Your task to perform on an android device: change alarm snooze length Image 0: 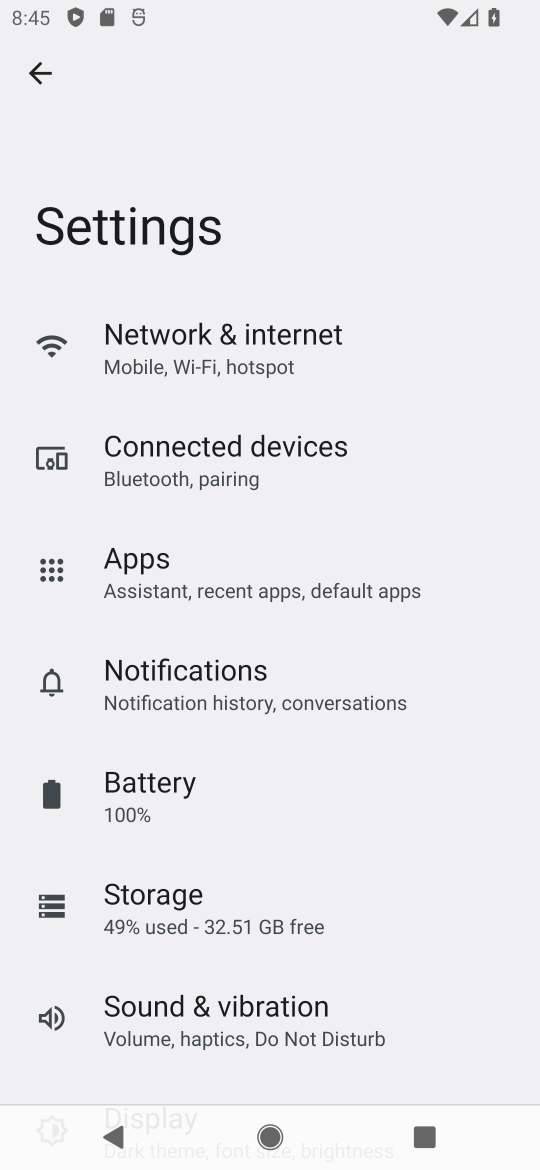
Step 0: press home button
Your task to perform on an android device: change alarm snooze length Image 1: 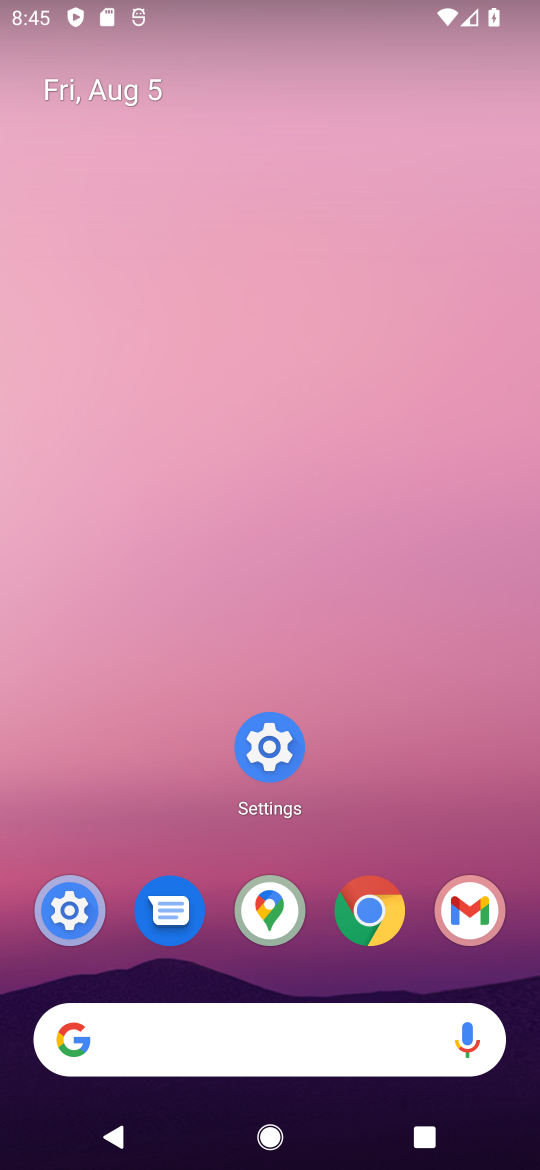
Step 1: drag from (301, 979) to (386, 204)
Your task to perform on an android device: change alarm snooze length Image 2: 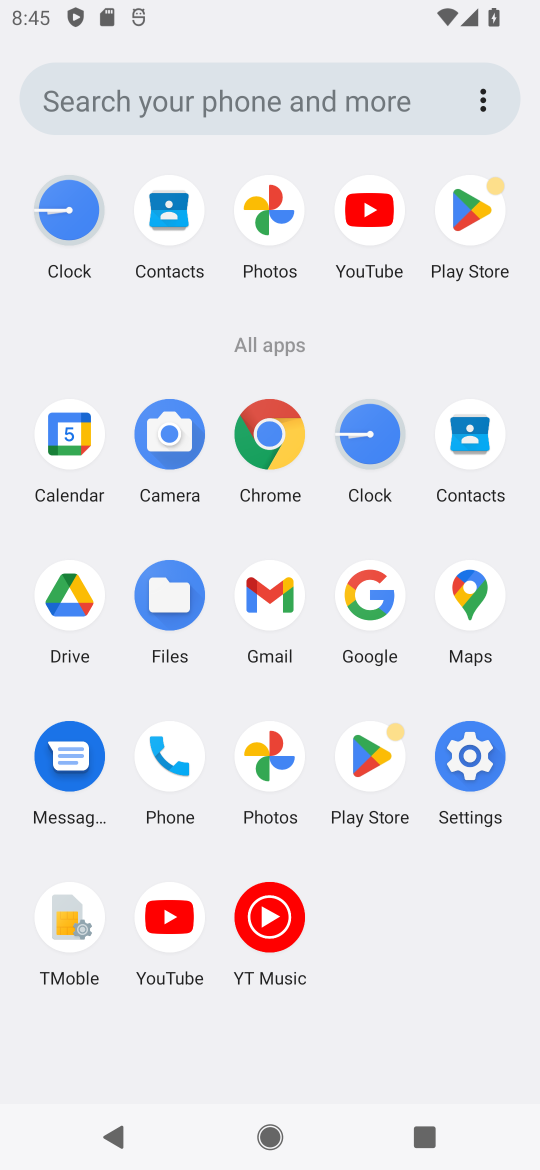
Step 2: click (360, 433)
Your task to perform on an android device: change alarm snooze length Image 3: 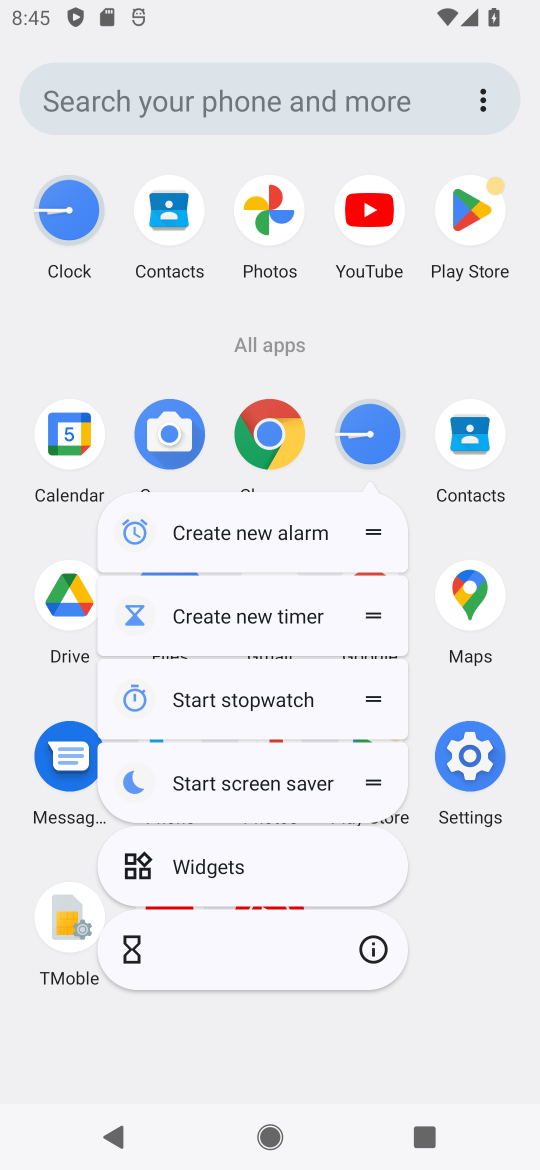
Step 3: click (371, 442)
Your task to perform on an android device: change alarm snooze length Image 4: 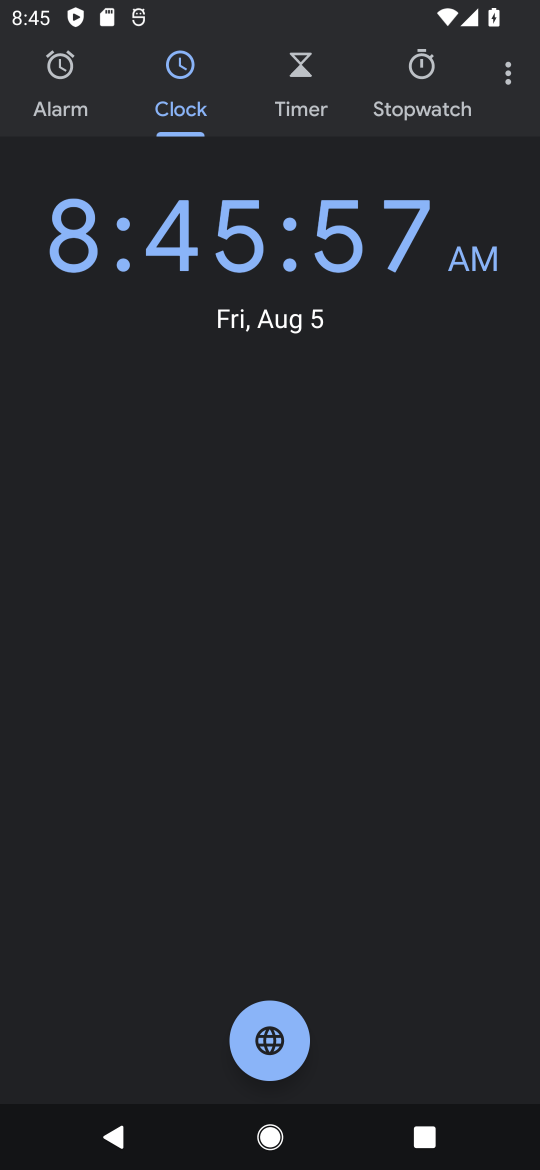
Step 4: click (511, 76)
Your task to perform on an android device: change alarm snooze length Image 5: 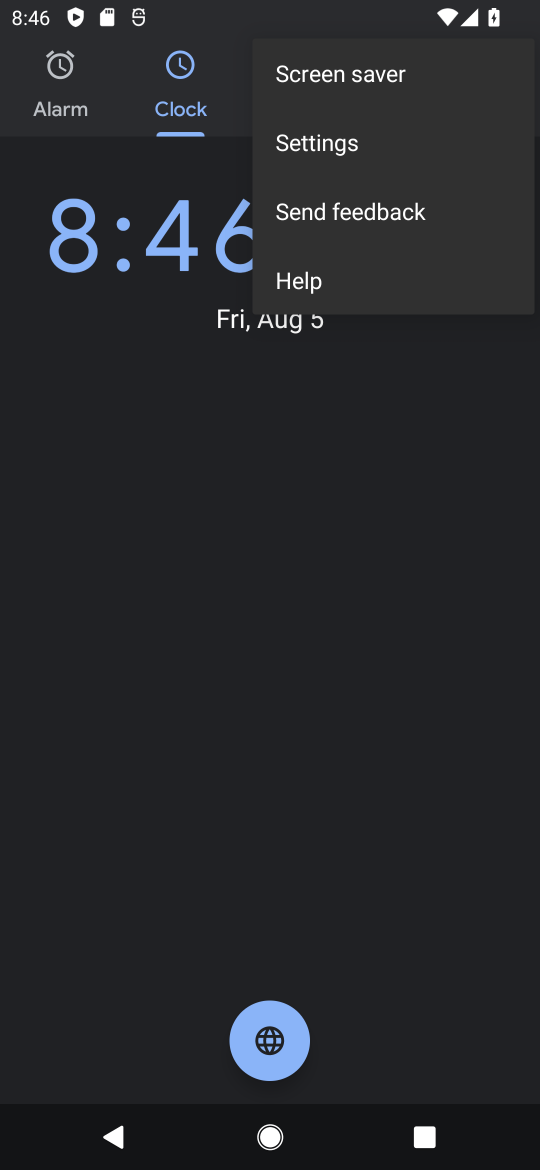
Step 5: click (334, 140)
Your task to perform on an android device: change alarm snooze length Image 6: 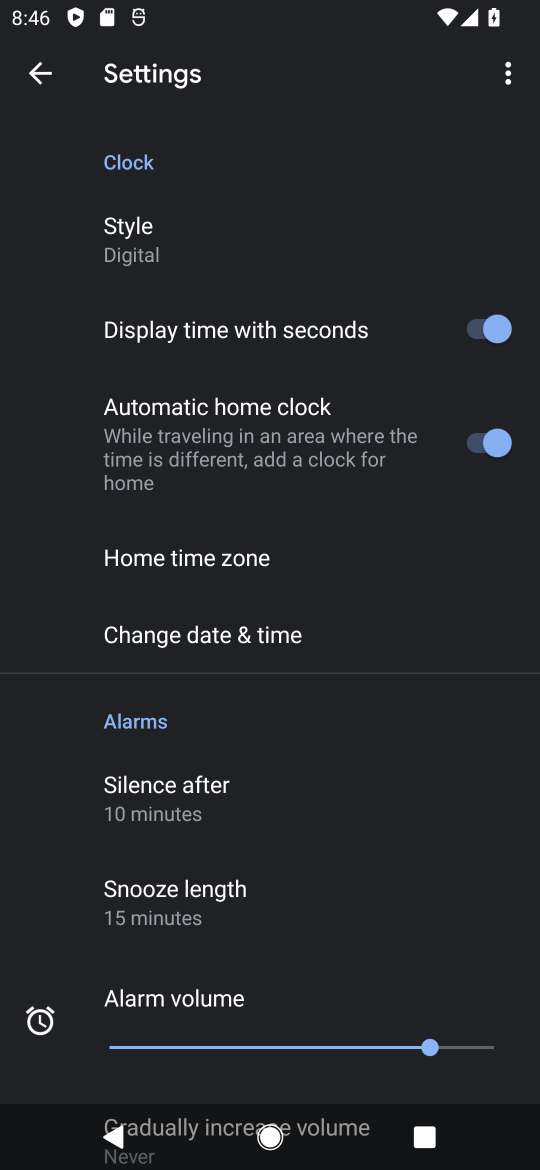
Step 6: click (218, 915)
Your task to perform on an android device: change alarm snooze length Image 7: 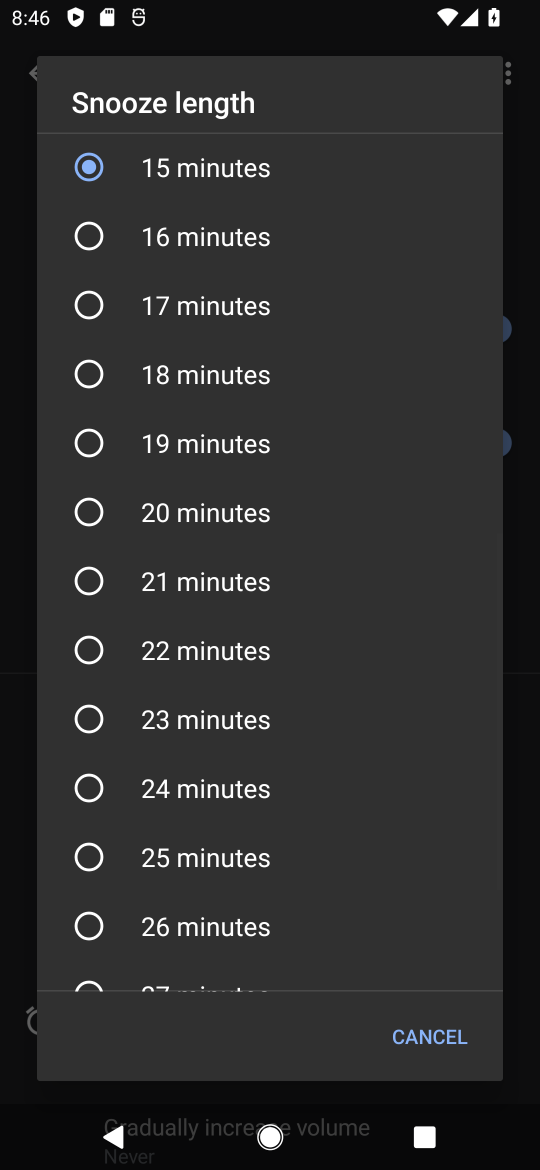
Step 7: click (94, 507)
Your task to perform on an android device: change alarm snooze length Image 8: 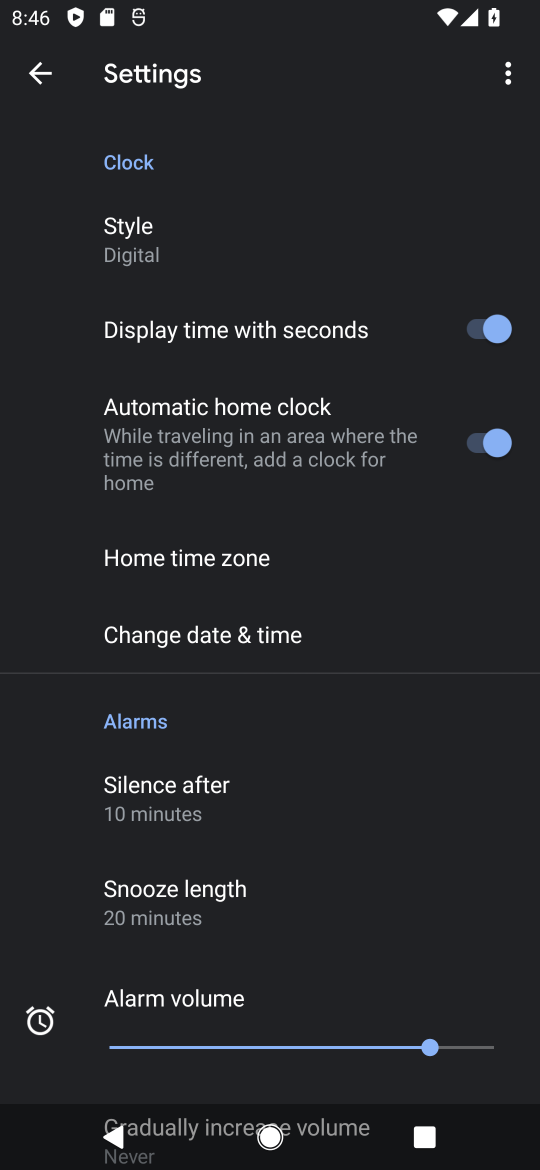
Step 8: task complete